Your task to perform on an android device: Open the web browser Image 0: 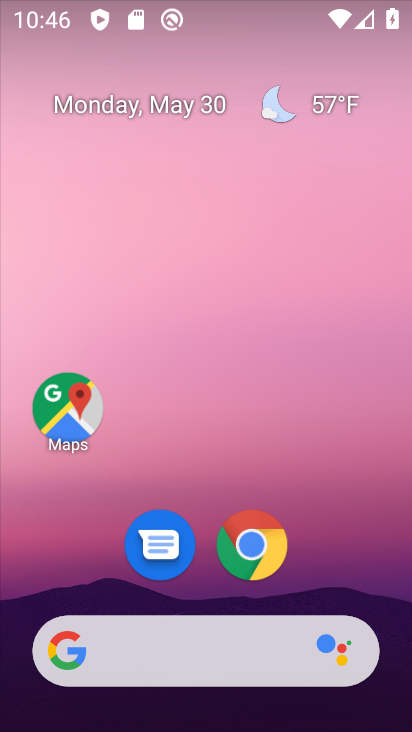
Step 0: press home button
Your task to perform on an android device: Open the web browser Image 1: 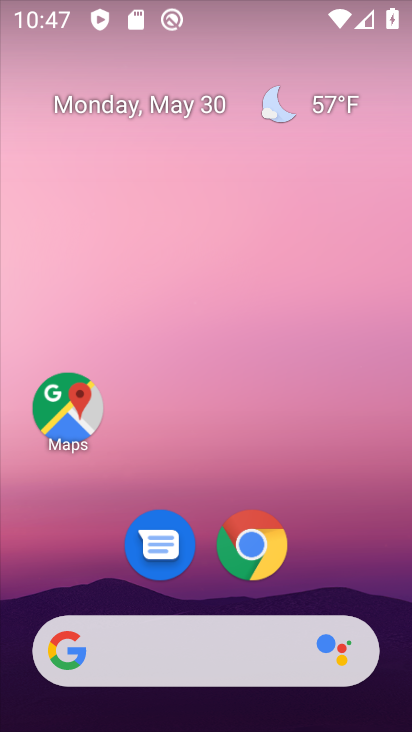
Step 1: drag from (241, 694) to (330, 76)
Your task to perform on an android device: Open the web browser Image 2: 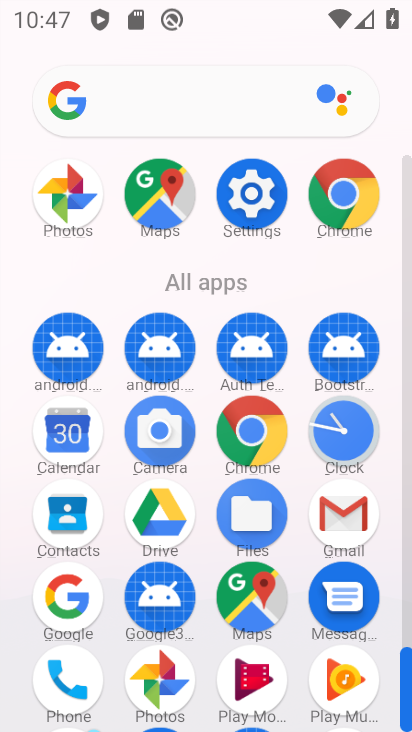
Step 2: click (343, 202)
Your task to perform on an android device: Open the web browser Image 3: 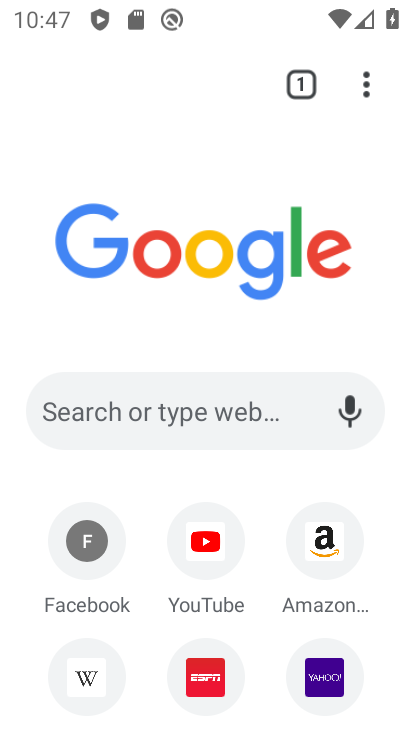
Step 3: click (151, 403)
Your task to perform on an android device: Open the web browser Image 4: 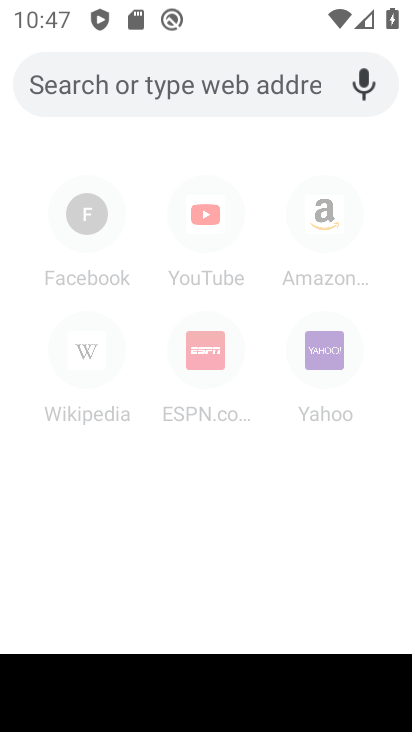
Step 4: task complete